Your task to perform on an android device: Toggle the flashlight Image 0: 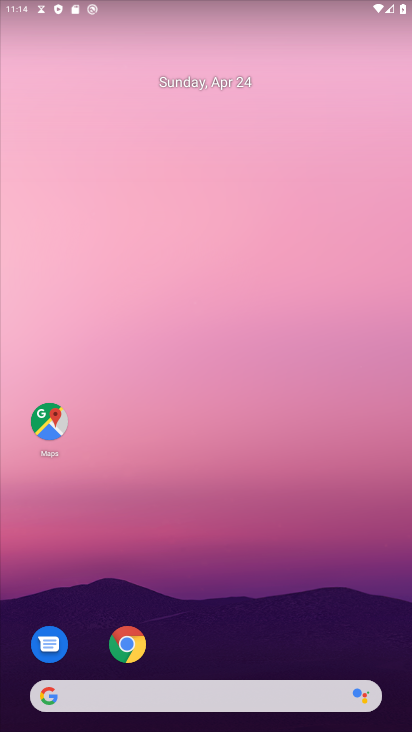
Step 0: drag from (177, 10) to (198, 523)
Your task to perform on an android device: Toggle the flashlight Image 1: 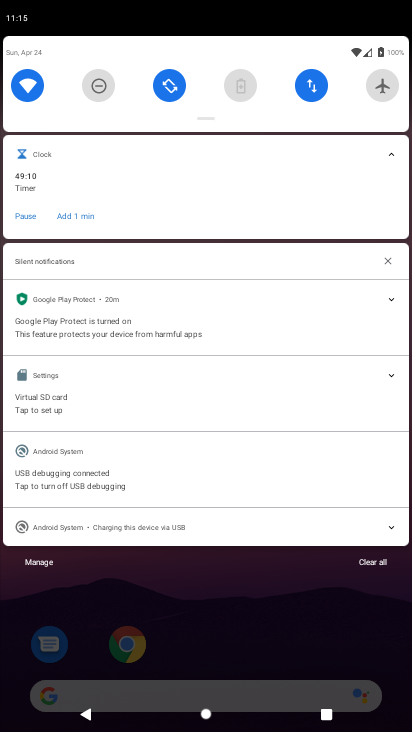
Step 1: task complete